Your task to perform on an android device: Turn on the flashlight Image 0: 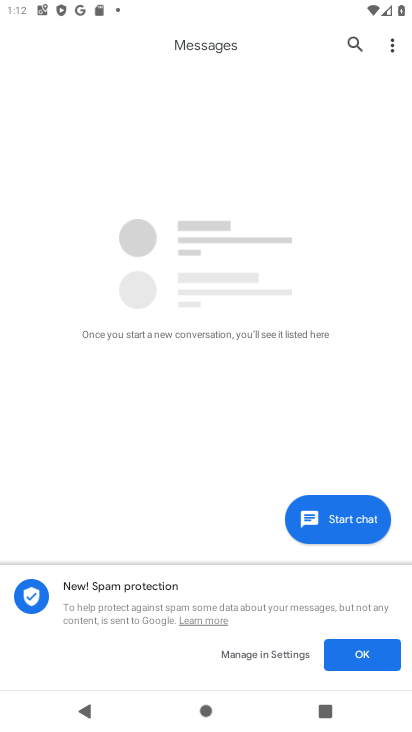
Step 0: drag from (165, 608) to (274, 98)
Your task to perform on an android device: Turn on the flashlight Image 1: 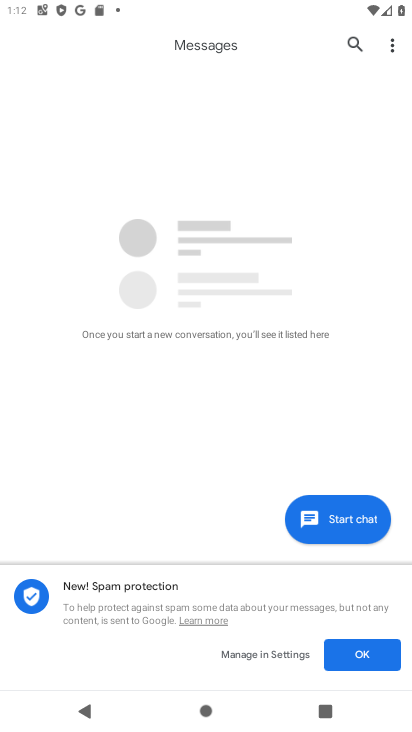
Step 1: press home button
Your task to perform on an android device: Turn on the flashlight Image 2: 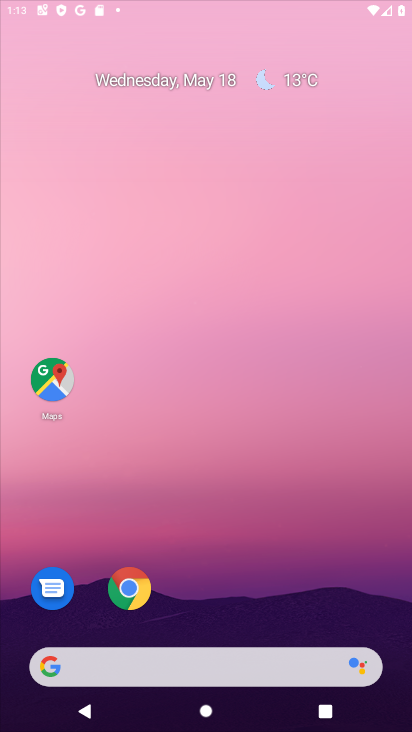
Step 2: drag from (189, 593) to (285, 139)
Your task to perform on an android device: Turn on the flashlight Image 3: 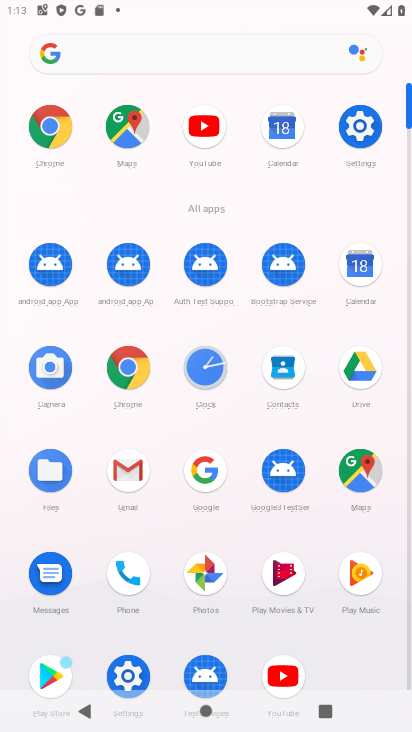
Step 3: click (128, 664)
Your task to perform on an android device: Turn on the flashlight Image 4: 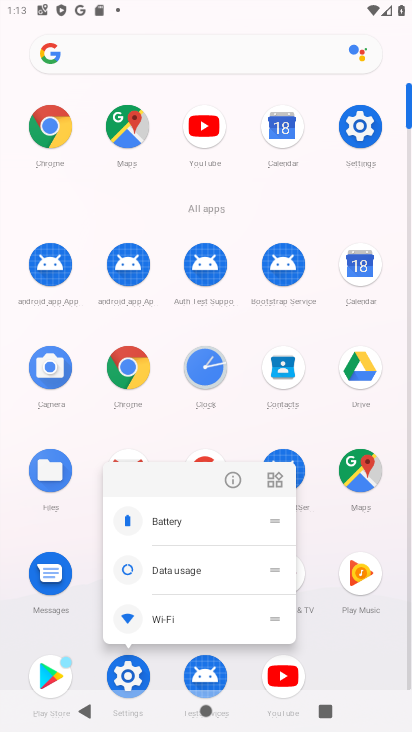
Step 4: click (226, 470)
Your task to perform on an android device: Turn on the flashlight Image 5: 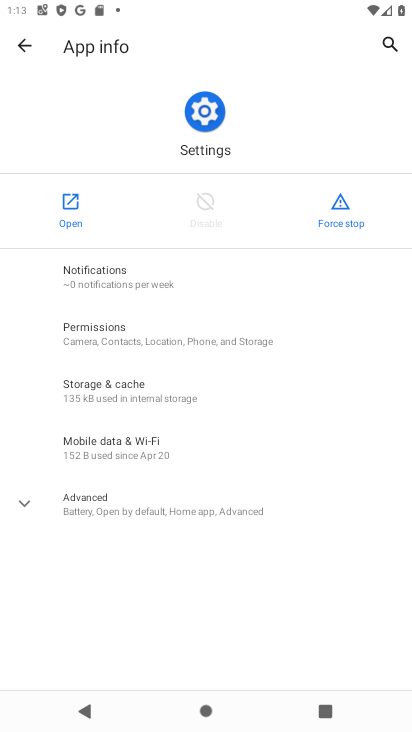
Step 5: click (75, 234)
Your task to perform on an android device: Turn on the flashlight Image 6: 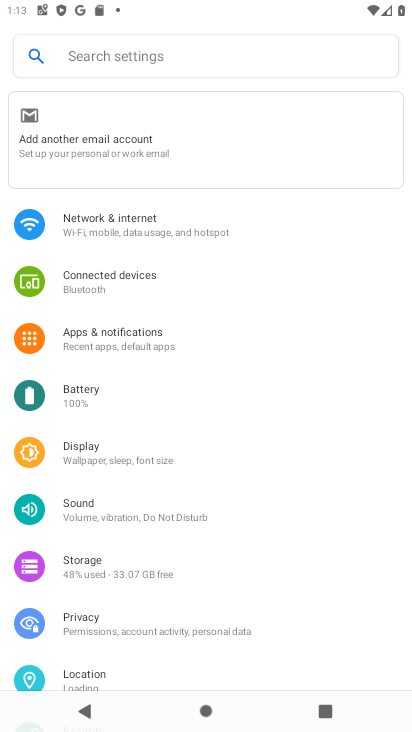
Step 6: click (169, 52)
Your task to perform on an android device: Turn on the flashlight Image 7: 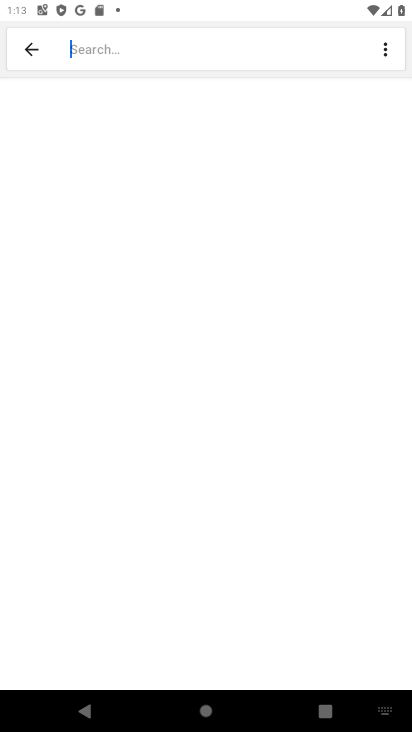
Step 7: type "flas"
Your task to perform on an android device: Turn on the flashlight Image 8: 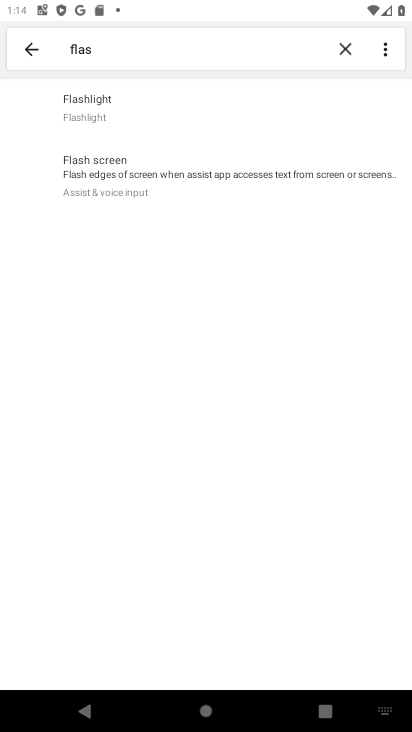
Step 8: click (287, 205)
Your task to perform on an android device: Turn on the flashlight Image 9: 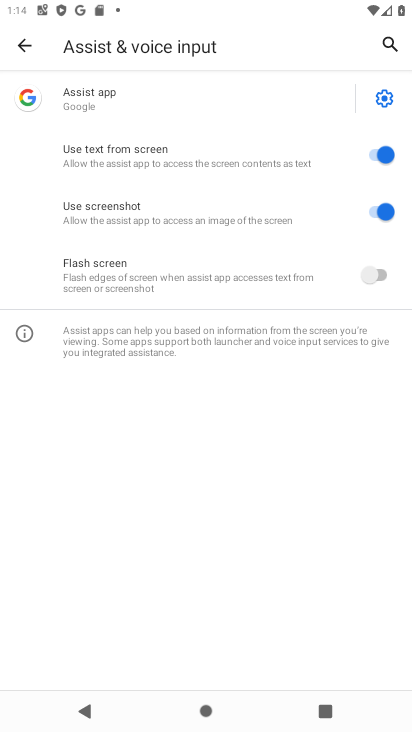
Step 9: drag from (284, 589) to (319, 128)
Your task to perform on an android device: Turn on the flashlight Image 10: 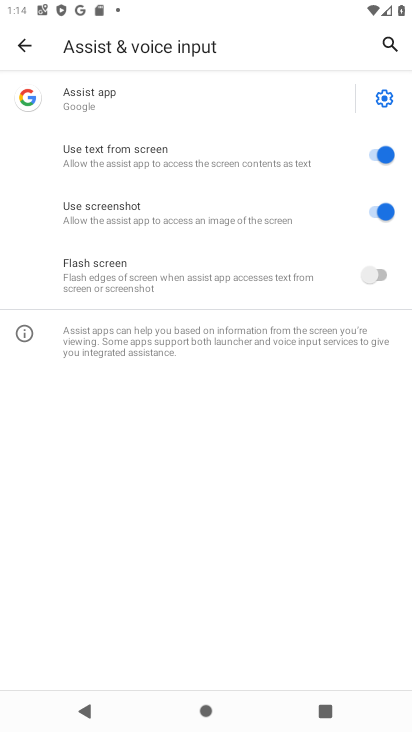
Step 10: drag from (276, 627) to (342, 265)
Your task to perform on an android device: Turn on the flashlight Image 11: 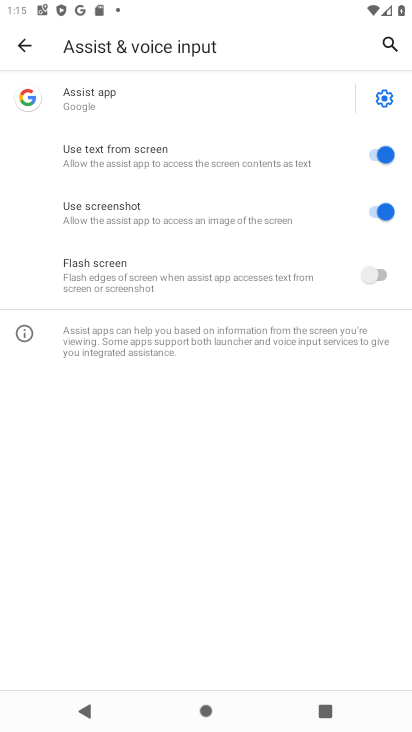
Step 11: press home button
Your task to perform on an android device: Turn on the flashlight Image 12: 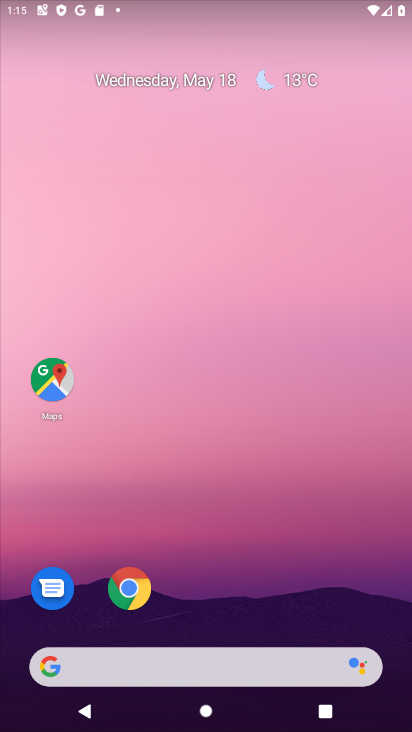
Step 12: drag from (184, 554) to (259, 101)
Your task to perform on an android device: Turn on the flashlight Image 13: 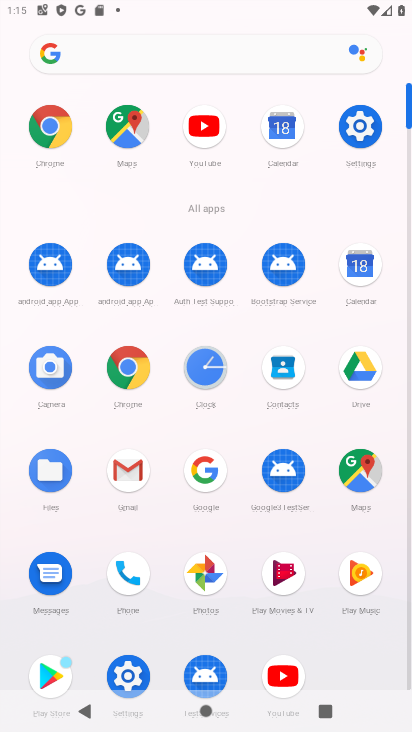
Step 13: click (360, 134)
Your task to perform on an android device: Turn on the flashlight Image 14: 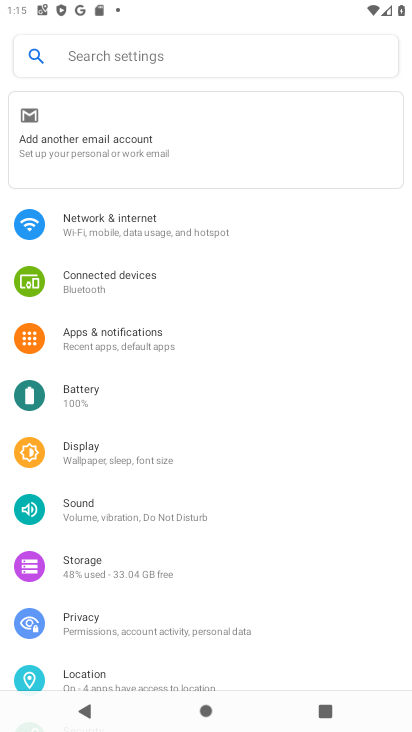
Step 14: click (125, 54)
Your task to perform on an android device: Turn on the flashlight Image 15: 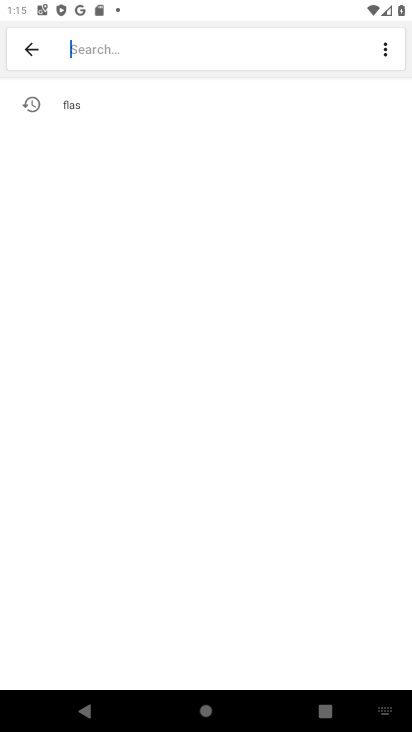
Step 15: type "flashlight"
Your task to perform on an android device: Turn on the flashlight Image 16: 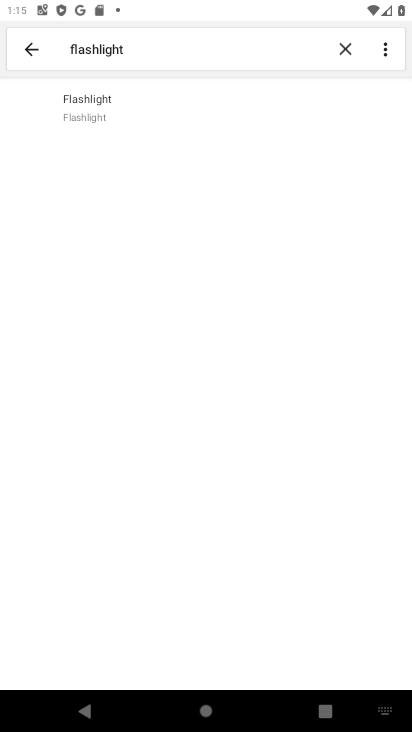
Step 16: click (126, 126)
Your task to perform on an android device: Turn on the flashlight Image 17: 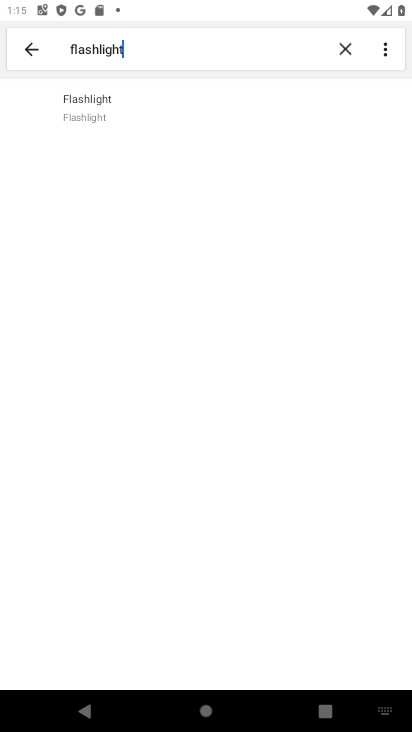
Step 17: task complete